Your task to perform on an android device: Open eBay Image 0: 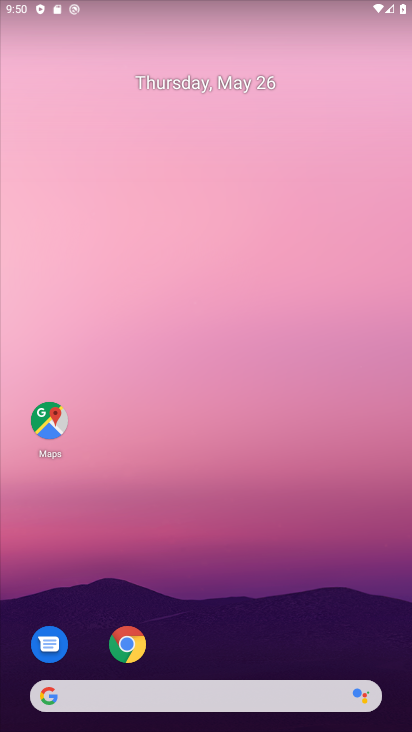
Step 0: drag from (370, 628) to (381, 200)
Your task to perform on an android device: Open eBay Image 1: 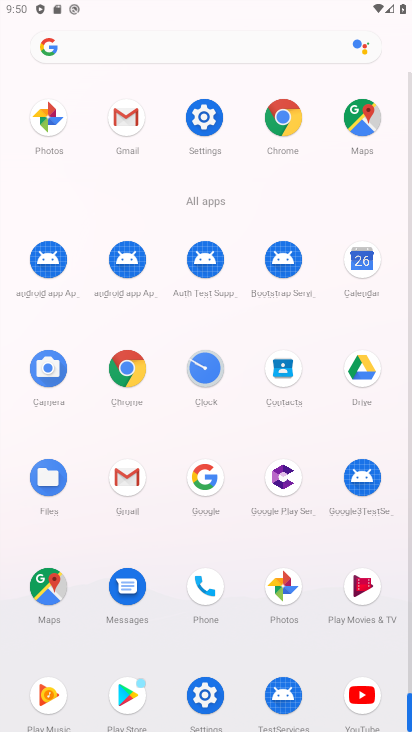
Step 1: click (141, 375)
Your task to perform on an android device: Open eBay Image 2: 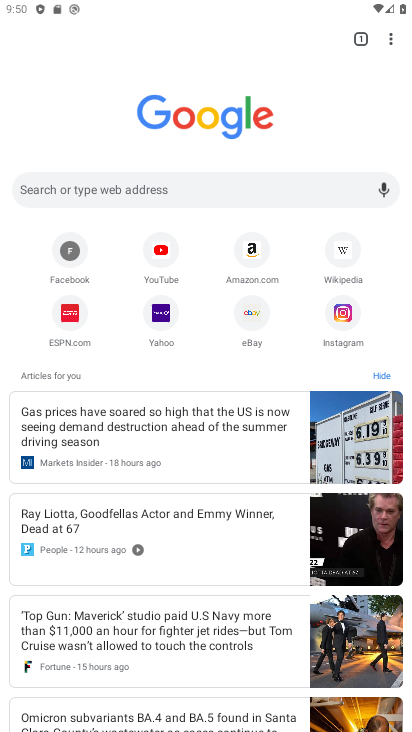
Step 2: click (304, 190)
Your task to perform on an android device: Open eBay Image 3: 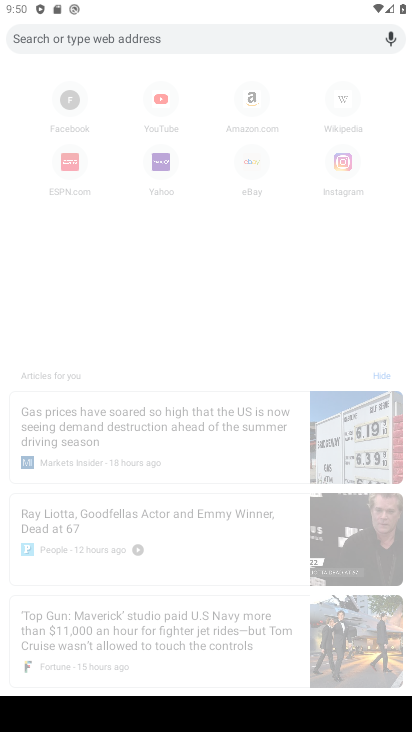
Step 3: type "ebay"
Your task to perform on an android device: Open eBay Image 4: 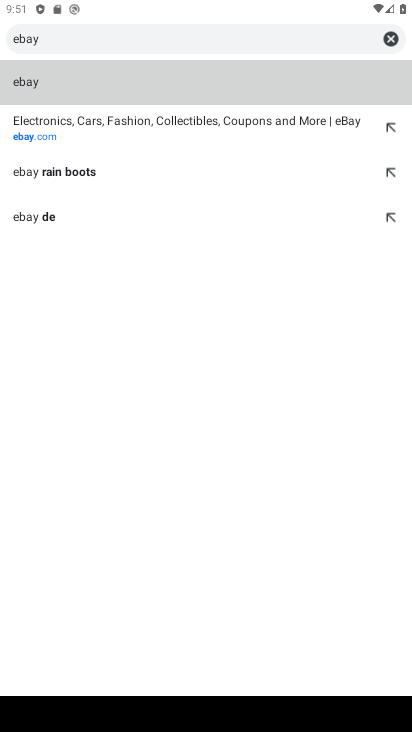
Step 4: click (126, 115)
Your task to perform on an android device: Open eBay Image 5: 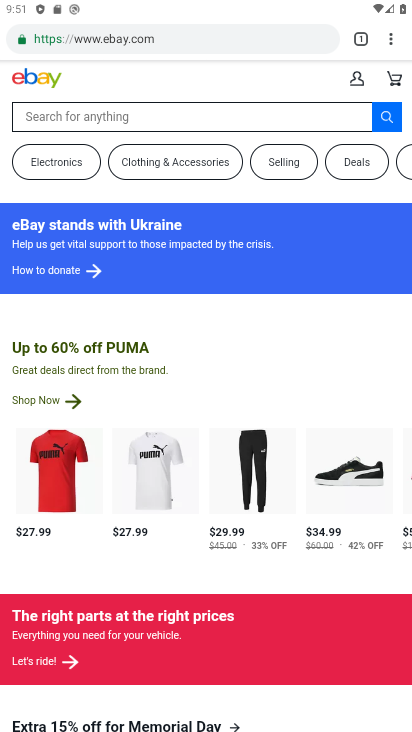
Step 5: task complete